Your task to perform on an android device: turn on improve location accuracy Image 0: 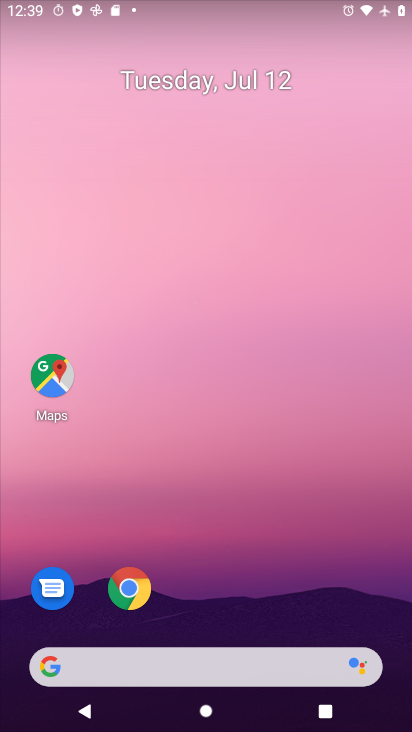
Step 0: drag from (186, 677) to (336, 192)
Your task to perform on an android device: turn on improve location accuracy Image 1: 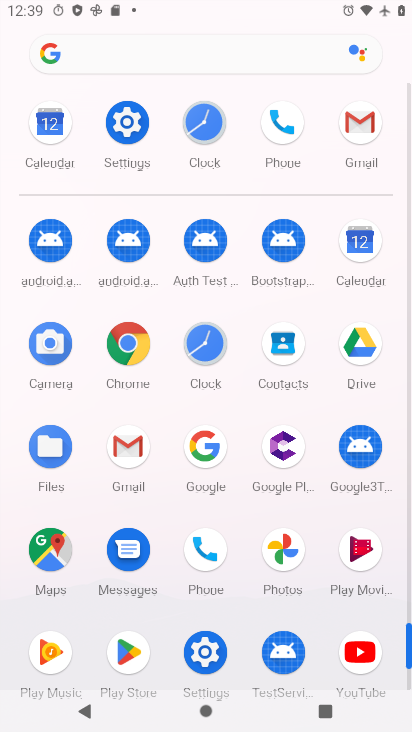
Step 1: click (136, 128)
Your task to perform on an android device: turn on improve location accuracy Image 2: 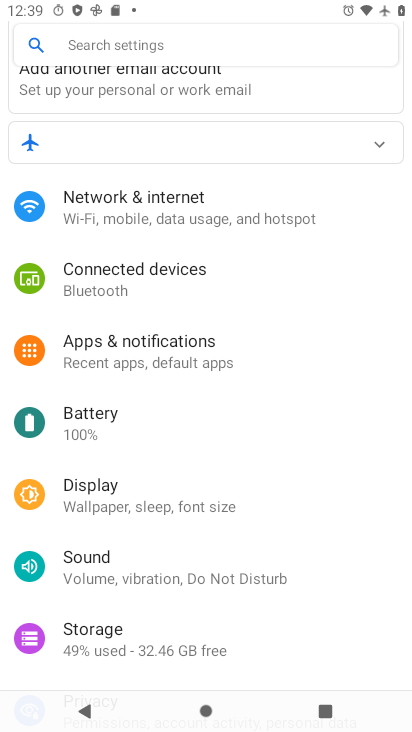
Step 2: drag from (203, 573) to (300, 264)
Your task to perform on an android device: turn on improve location accuracy Image 3: 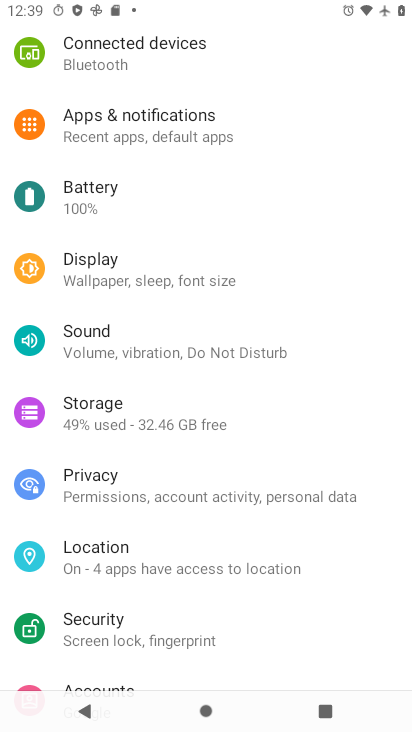
Step 3: click (145, 561)
Your task to perform on an android device: turn on improve location accuracy Image 4: 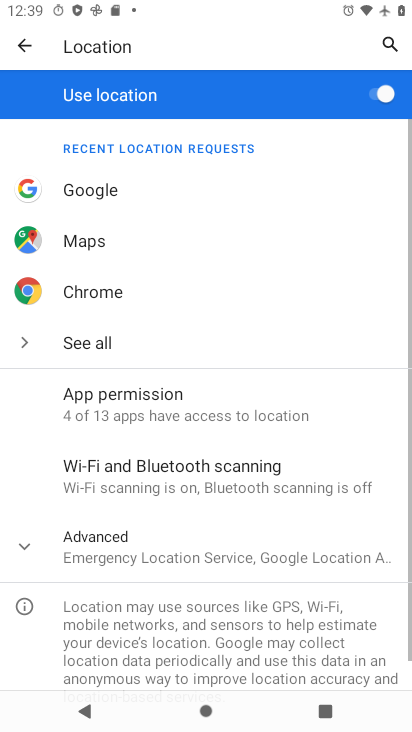
Step 4: click (141, 555)
Your task to perform on an android device: turn on improve location accuracy Image 5: 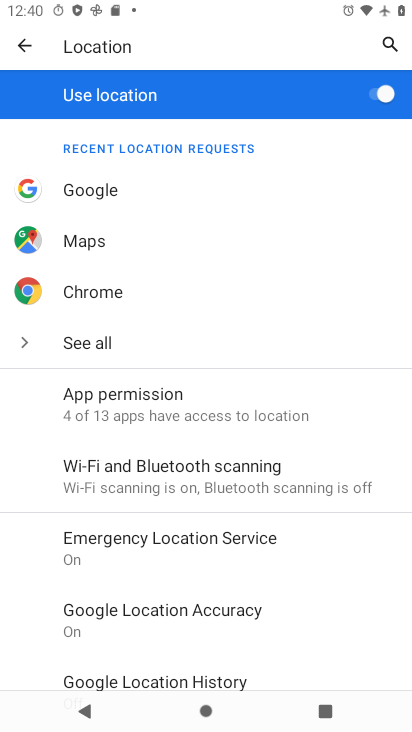
Step 5: click (182, 612)
Your task to perform on an android device: turn on improve location accuracy Image 6: 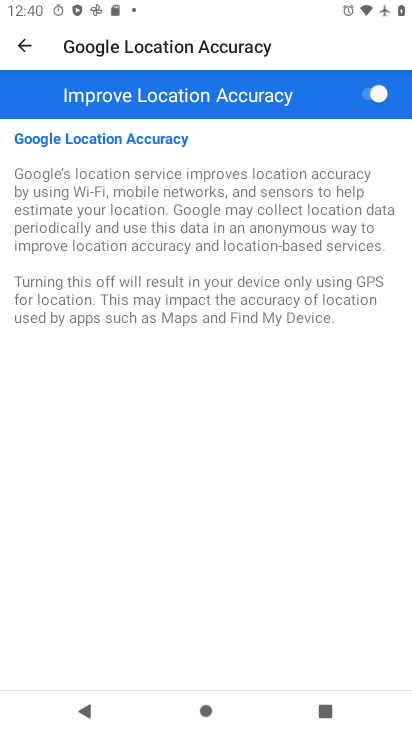
Step 6: task complete